Your task to perform on an android device: Search for Mexican restaurants on Maps Image 0: 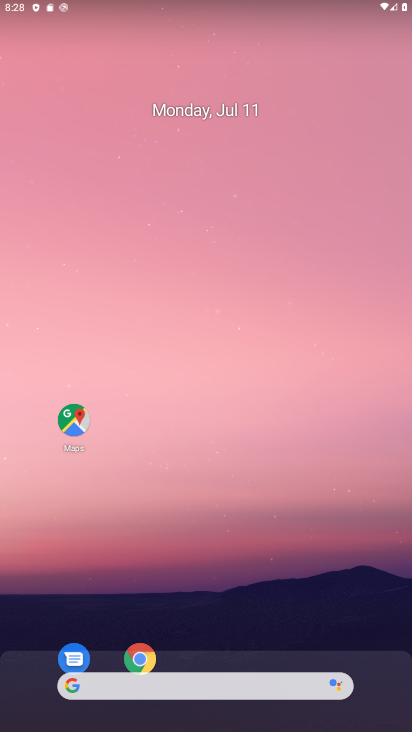
Step 0: click (70, 419)
Your task to perform on an android device: Search for Mexican restaurants on Maps Image 1: 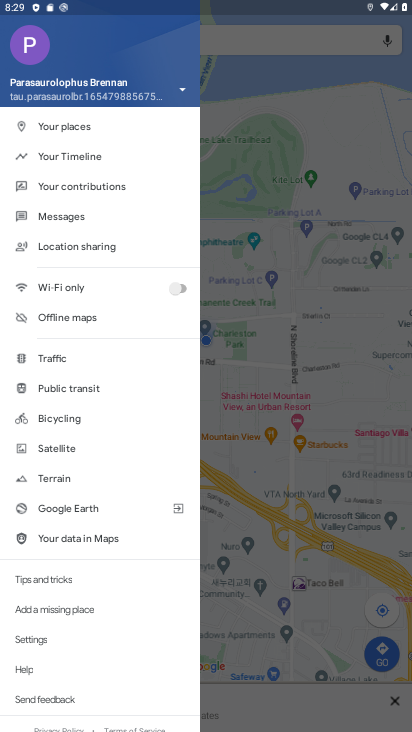
Step 1: click (273, 368)
Your task to perform on an android device: Search for Mexican restaurants on Maps Image 2: 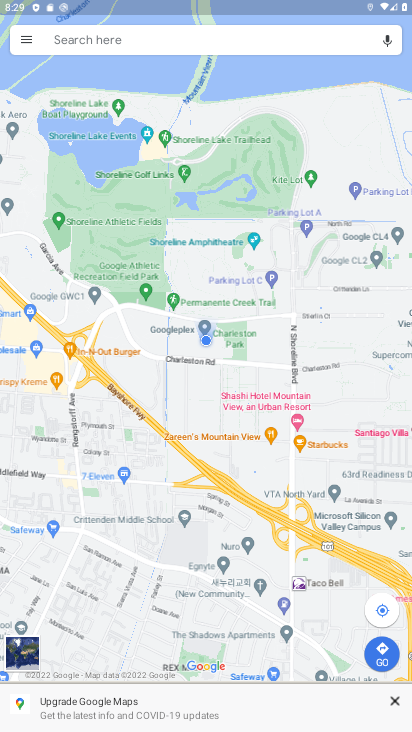
Step 2: click (163, 27)
Your task to perform on an android device: Search for Mexican restaurants on Maps Image 3: 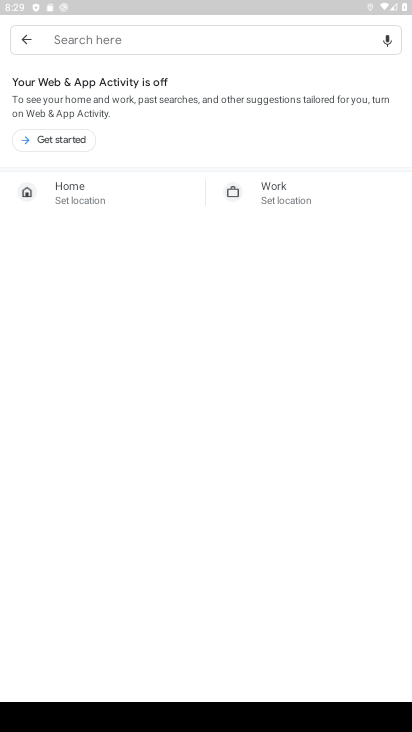
Step 3: type "mexican restaurants"
Your task to perform on an android device: Search for Mexican restaurants on Maps Image 4: 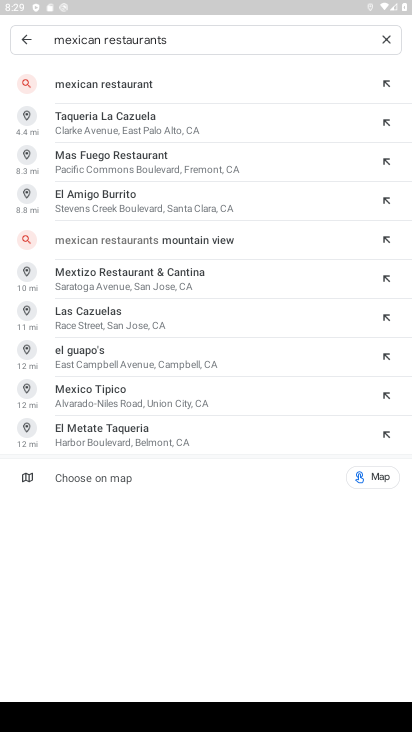
Step 4: click (97, 83)
Your task to perform on an android device: Search for Mexican restaurants on Maps Image 5: 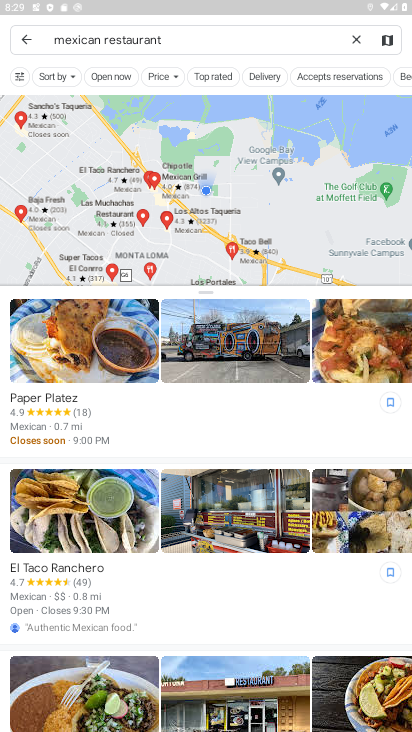
Step 5: task complete